Your task to perform on an android device: Add usb-b to the cart on newegg, then select checkout. Image 0: 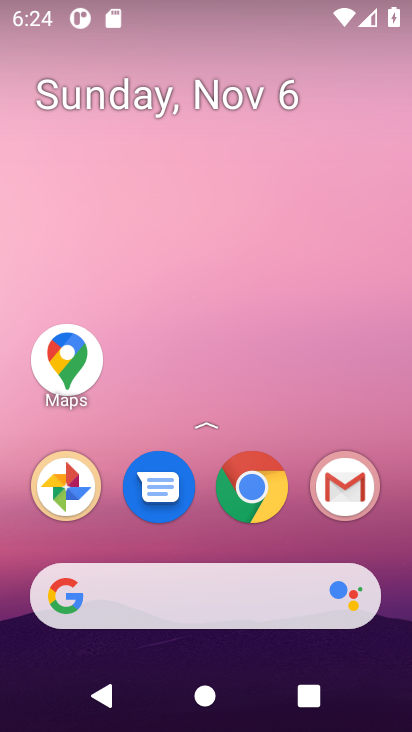
Step 0: click (253, 472)
Your task to perform on an android device: Add usb-b to the cart on newegg, then select checkout. Image 1: 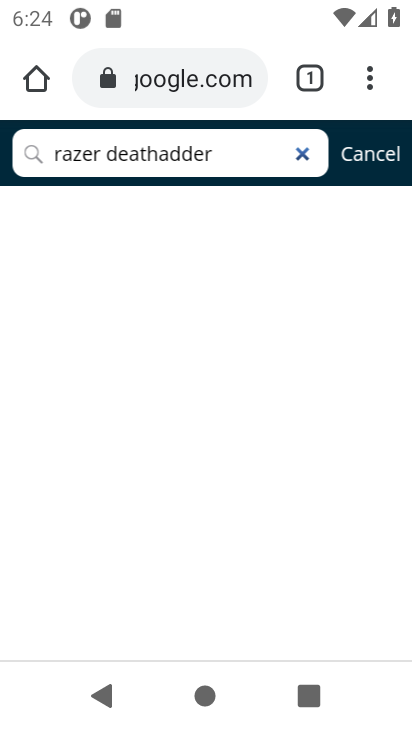
Step 1: click (305, 144)
Your task to perform on an android device: Add usb-b to the cart on newegg, then select checkout. Image 2: 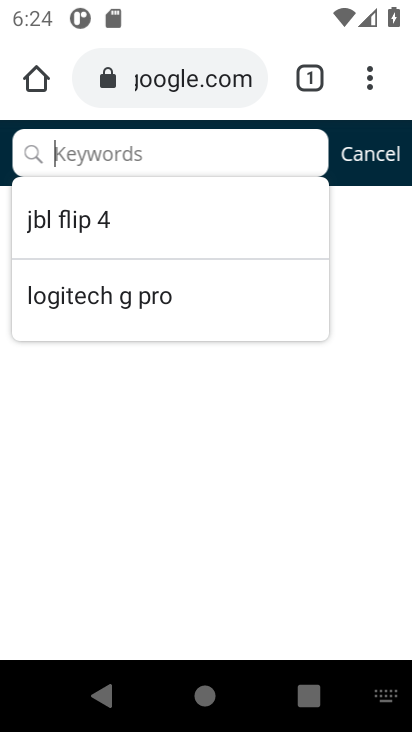
Step 2: type "usb-b"
Your task to perform on an android device: Add usb-b to the cart on newegg, then select checkout. Image 3: 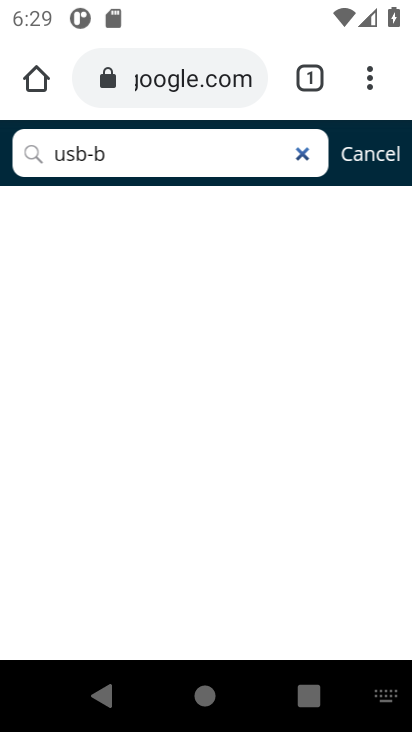
Step 3: task complete